Your task to perform on an android device: uninstall "Etsy: Buy & Sell Unique Items" Image 0: 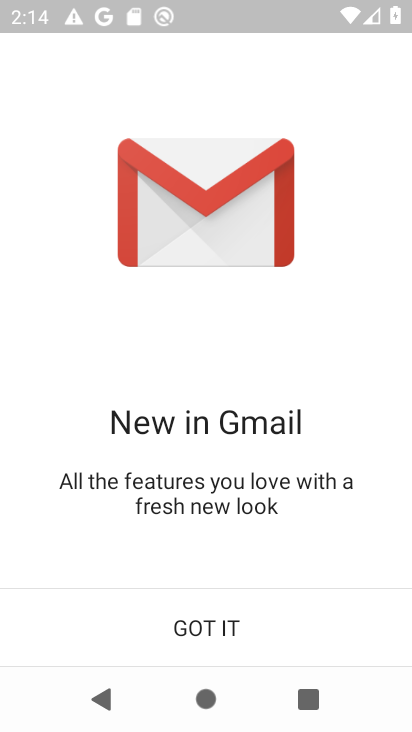
Step 0: press home button
Your task to perform on an android device: uninstall "Etsy: Buy & Sell Unique Items" Image 1: 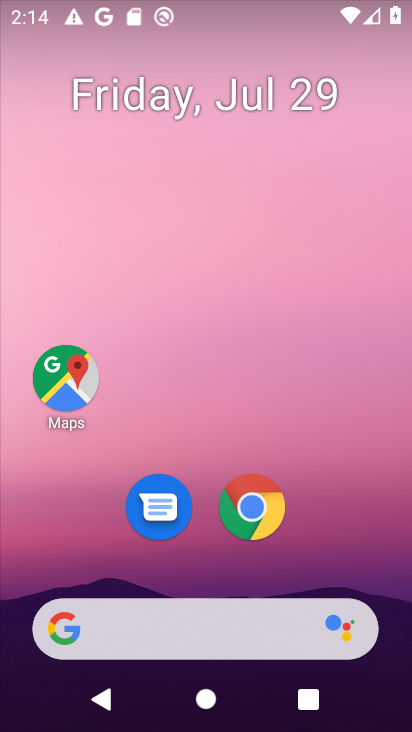
Step 1: drag from (358, 550) to (208, 49)
Your task to perform on an android device: uninstall "Etsy: Buy & Sell Unique Items" Image 2: 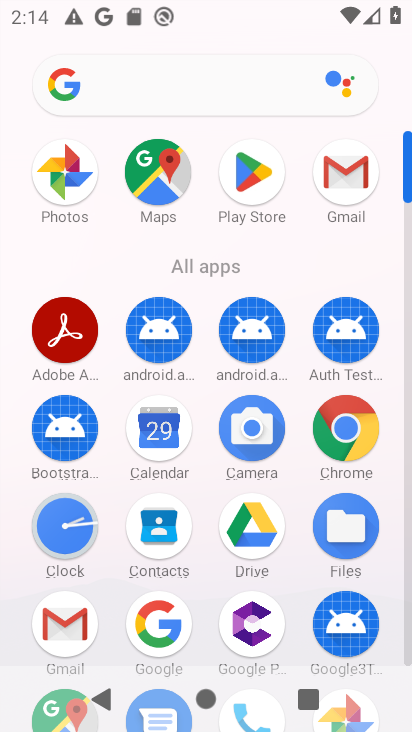
Step 2: click (405, 652)
Your task to perform on an android device: uninstall "Etsy: Buy & Sell Unique Items" Image 3: 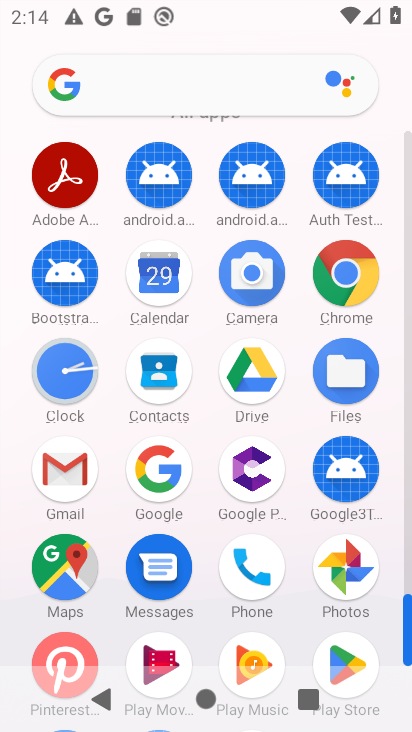
Step 3: click (344, 654)
Your task to perform on an android device: uninstall "Etsy: Buy & Sell Unique Items" Image 4: 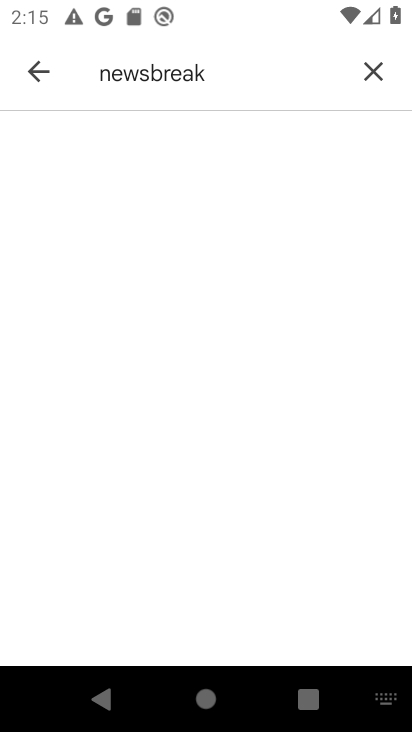
Step 4: click (365, 78)
Your task to perform on an android device: uninstall "Etsy: Buy & Sell Unique Items" Image 5: 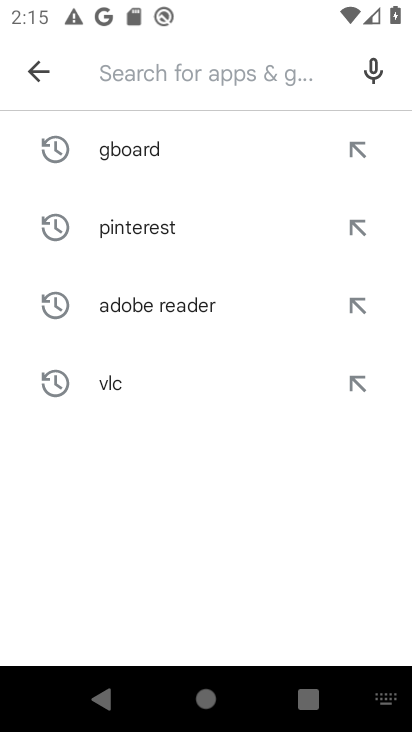
Step 5: type "esty"
Your task to perform on an android device: uninstall "Etsy: Buy & Sell Unique Items" Image 6: 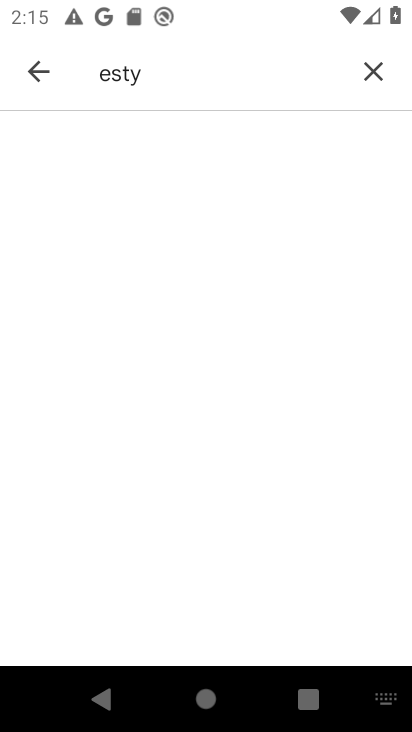
Step 6: task complete